Your task to perform on an android device: Open Google Image 0: 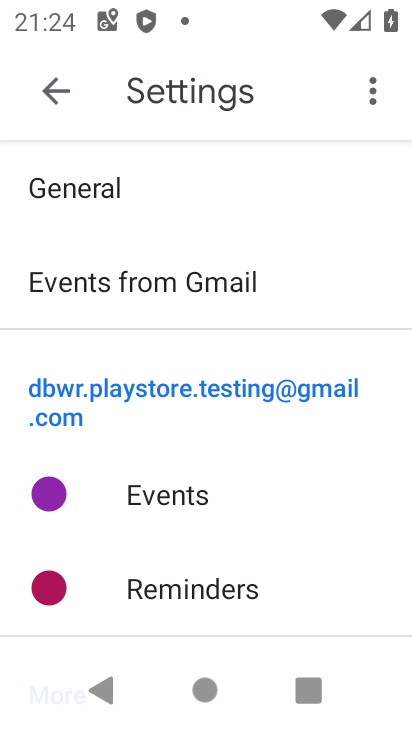
Step 0: press home button
Your task to perform on an android device: Open Google Image 1: 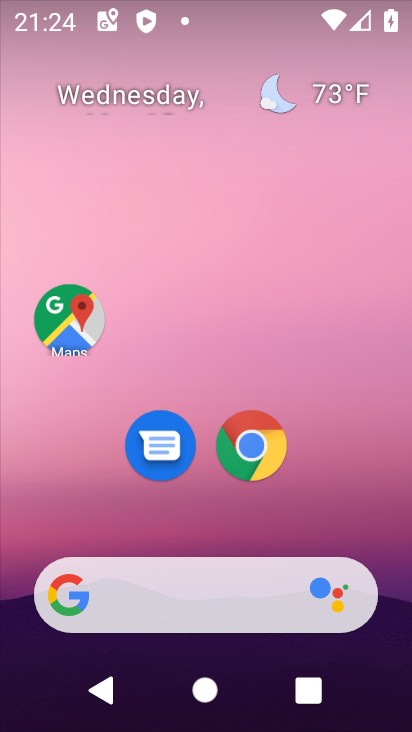
Step 1: drag from (304, 523) to (302, 231)
Your task to perform on an android device: Open Google Image 2: 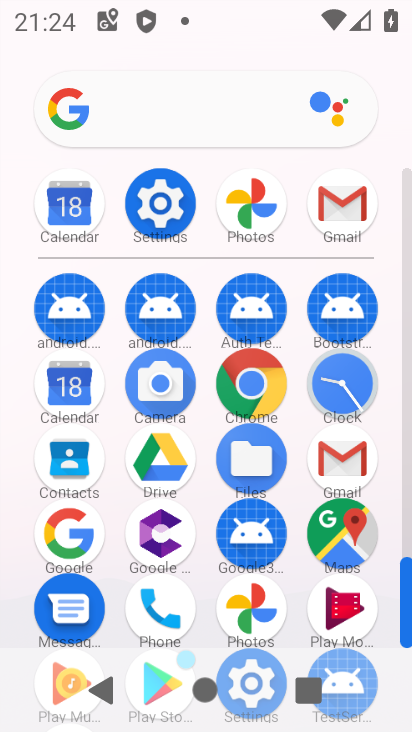
Step 2: drag from (204, 574) to (202, 485)
Your task to perform on an android device: Open Google Image 3: 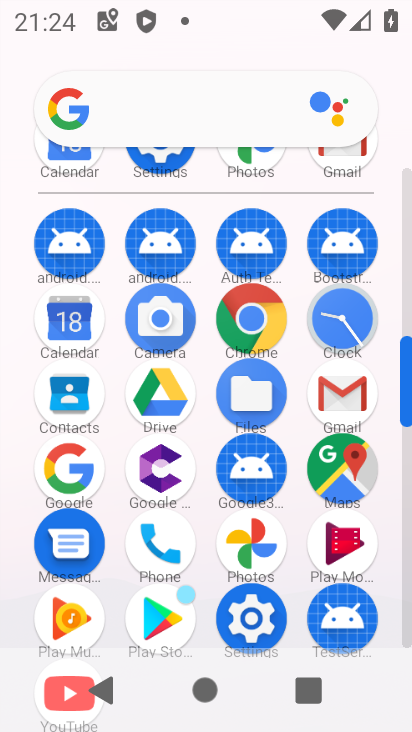
Step 3: click (77, 467)
Your task to perform on an android device: Open Google Image 4: 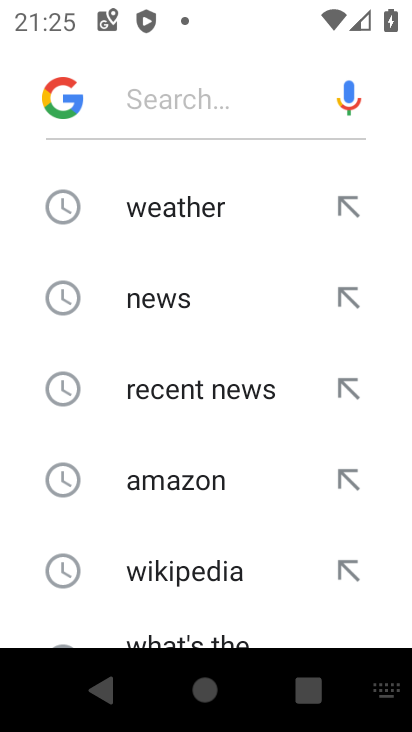
Step 4: task complete